Your task to perform on an android device: Turn on the flashlight Image 0: 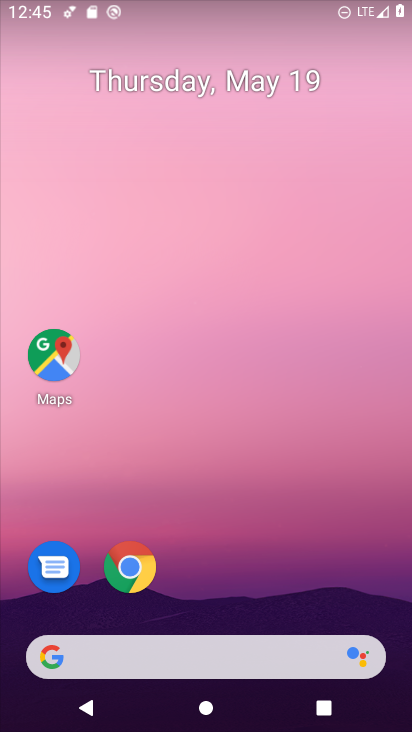
Step 0: drag from (265, 569) to (303, 79)
Your task to perform on an android device: Turn on the flashlight Image 1: 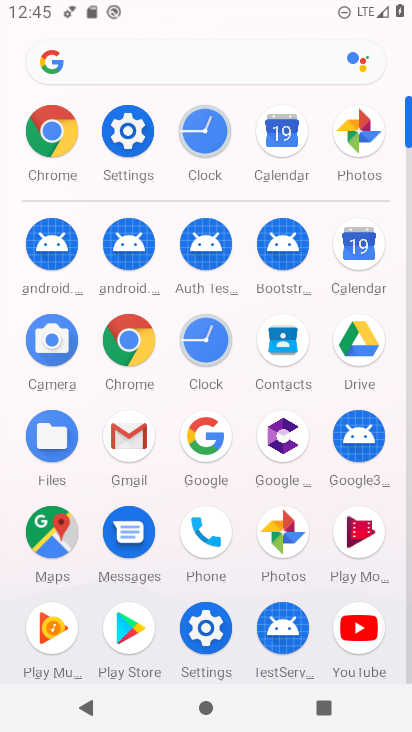
Step 1: click (130, 138)
Your task to perform on an android device: Turn on the flashlight Image 2: 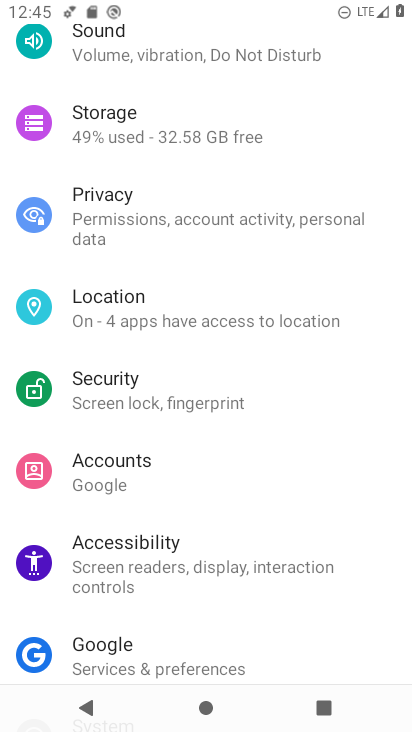
Step 2: drag from (210, 181) to (232, 634)
Your task to perform on an android device: Turn on the flashlight Image 3: 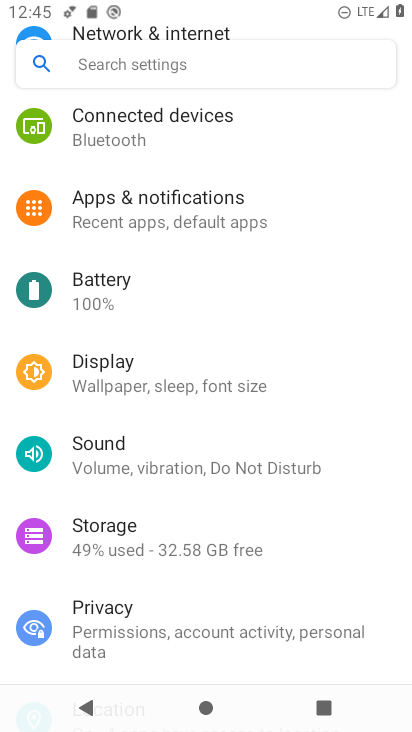
Step 3: drag from (186, 289) to (175, 579)
Your task to perform on an android device: Turn on the flashlight Image 4: 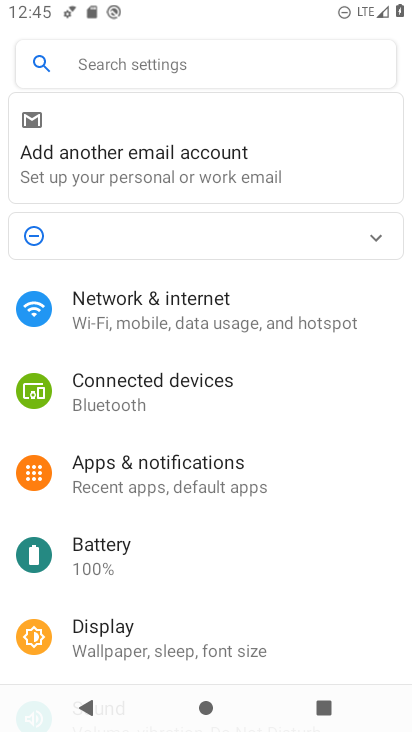
Step 4: click (210, 59)
Your task to perform on an android device: Turn on the flashlight Image 5: 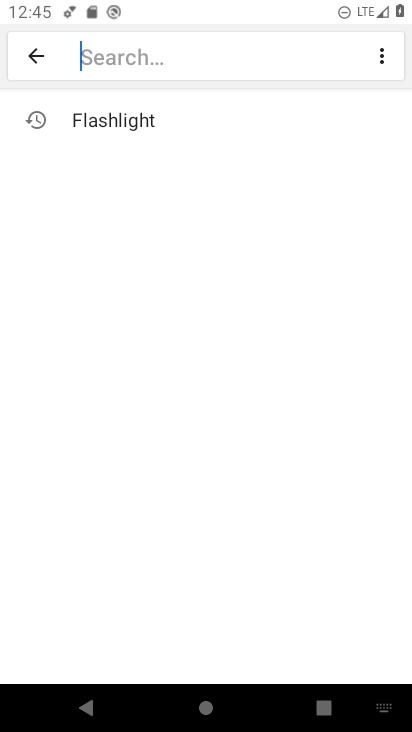
Step 5: click (138, 128)
Your task to perform on an android device: Turn on the flashlight Image 6: 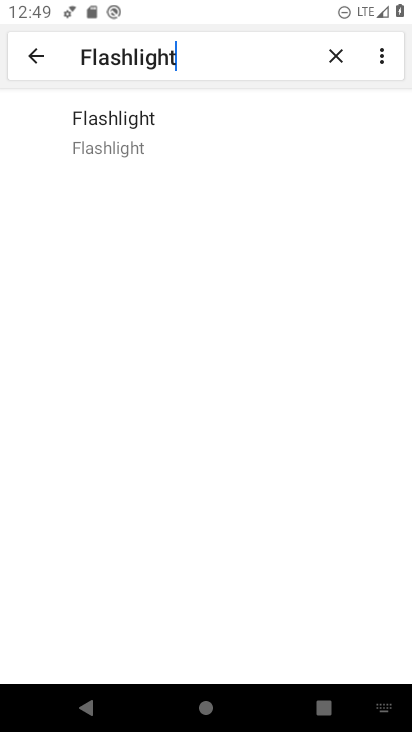
Step 6: task complete